Your task to perform on an android device: turn notification dots off Image 0: 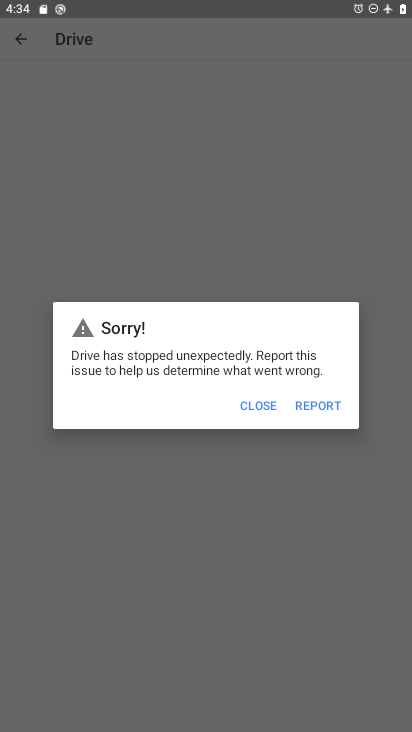
Step 0: press home button
Your task to perform on an android device: turn notification dots off Image 1: 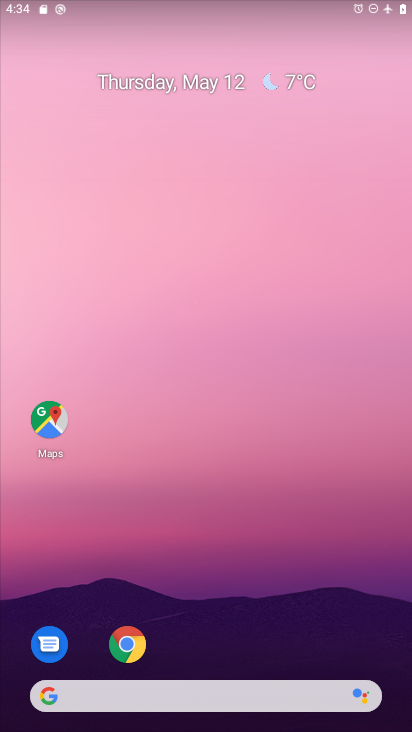
Step 1: drag from (206, 621) to (274, 176)
Your task to perform on an android device: turn notification dots off Image 2: 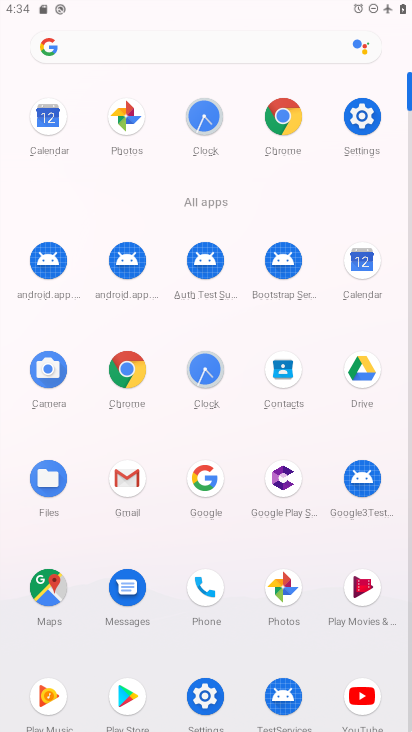
Step 2: click (363, 121)
Your task to perform on an android device: turn notification dots off Image 3: 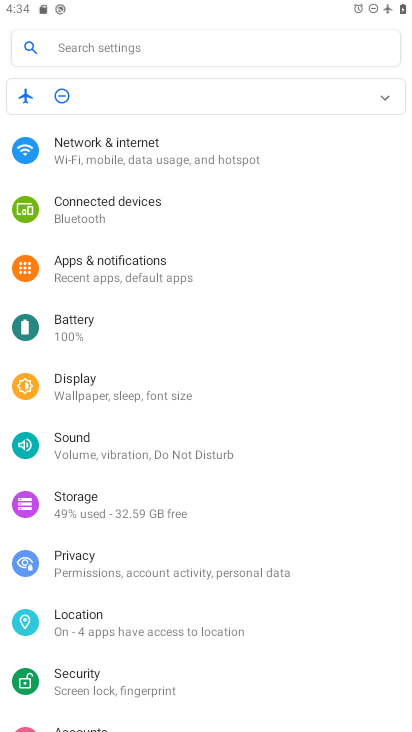
Step 3: click (161, 268)
Your task to perform on an android device: turn notification dots off Image 4: 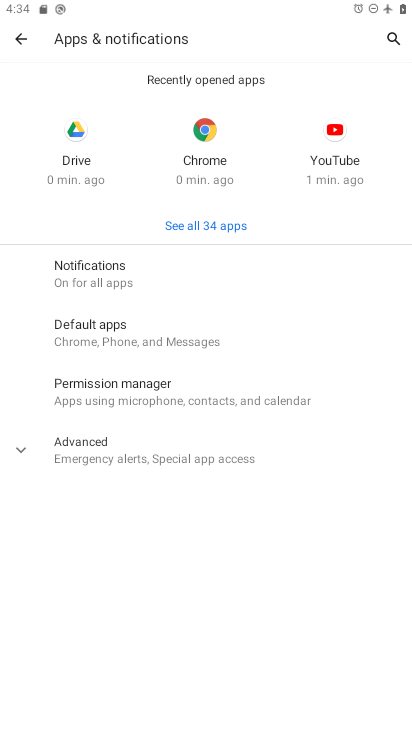
Step 4: click (117, 273)
Your task to perform on an android device: turn notification dots off Image 5: 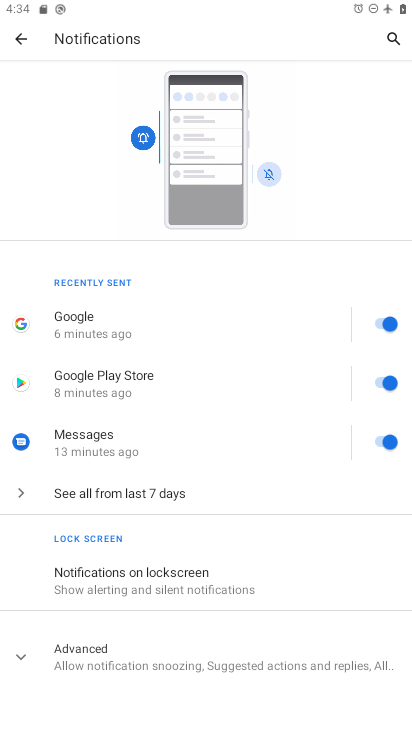
Step 5: click (130, 647)
Your task to perform on an android device: turn notification dots off Image 6: 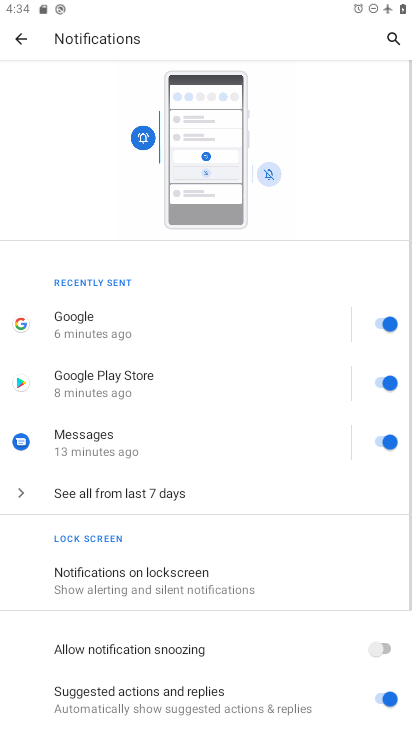
Step 6: drag from (166, 616) to (216, 289)
Your task to perform on an android device: turn notification dots off Image 7: 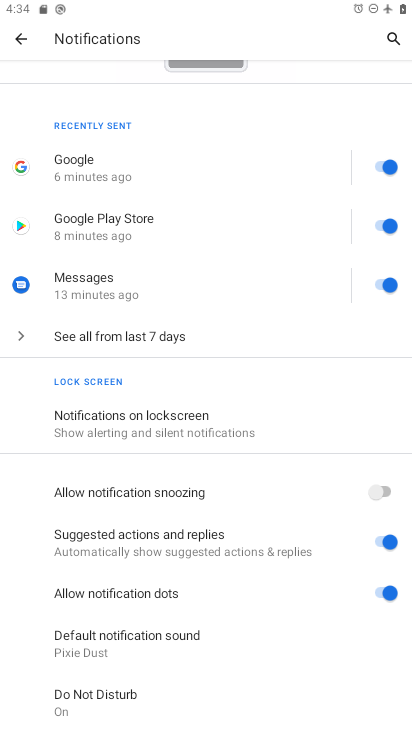
Step 7: click (362, 587)
Your task to perform on an android device: turn notification dots off Image 8: 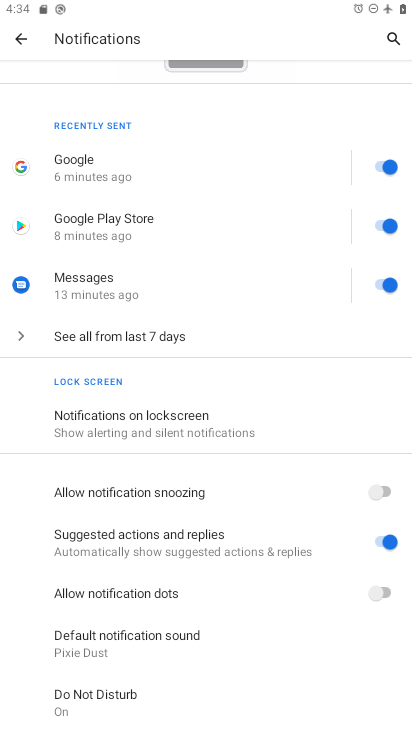
Step 8: task complete